Your task to perform on an android device: Open Reddit.com Image 0: 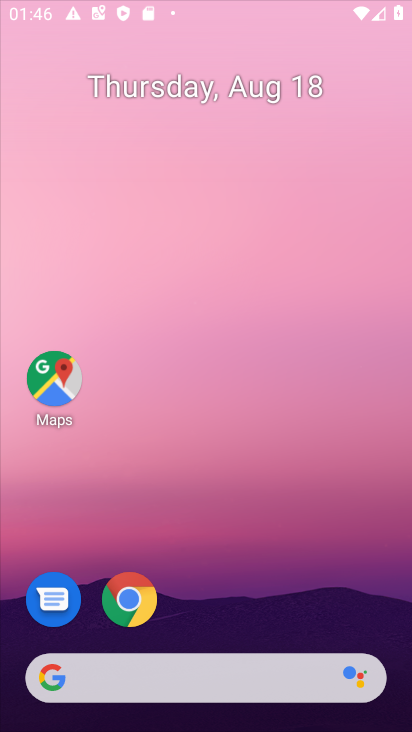
Step 0: press home button
Your task to perform on an android device: Open Reddit.com Image 1: 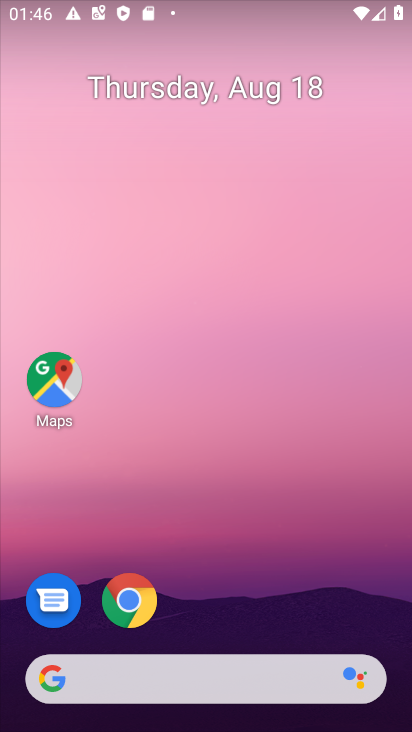
Step 1: click (60, 690)
Your task to perform on an android device: Open Reddit.com Image 2: 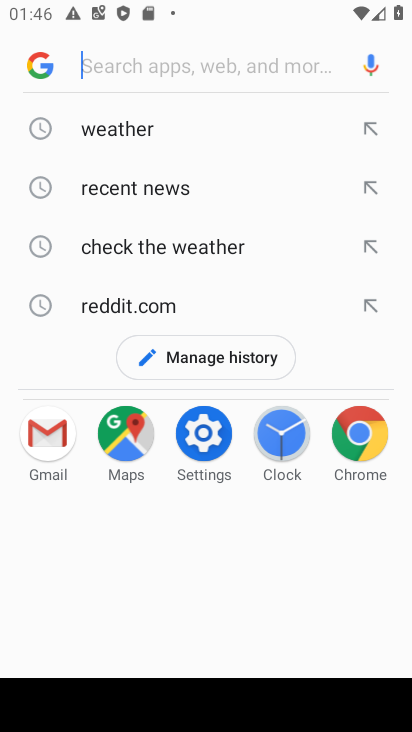
Step 2: click (100, 311)
Your task to perform on an android device: Open Reddit.com Image 3: 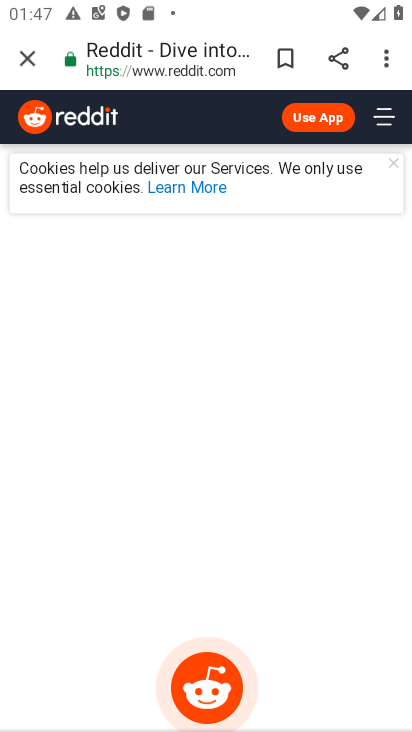
Step 3: task complete